Your task to perform on an android device: Open the Play Movies app and select the watchlist tab. Image 0: 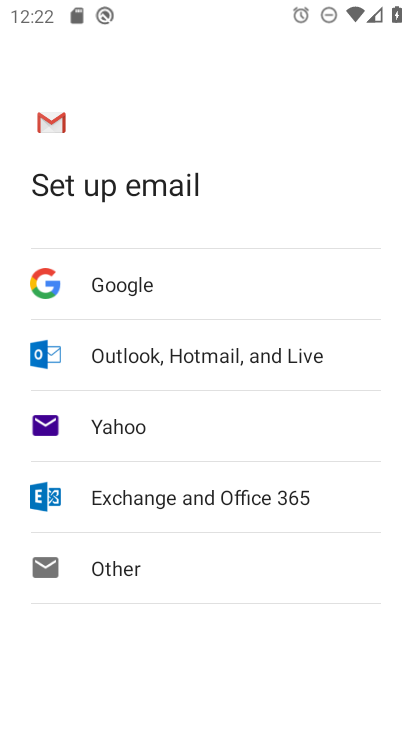
Step 0: press home button
Your task to perform on an android device: Open the Play Movies app and select the watchlist tab. Image 1: 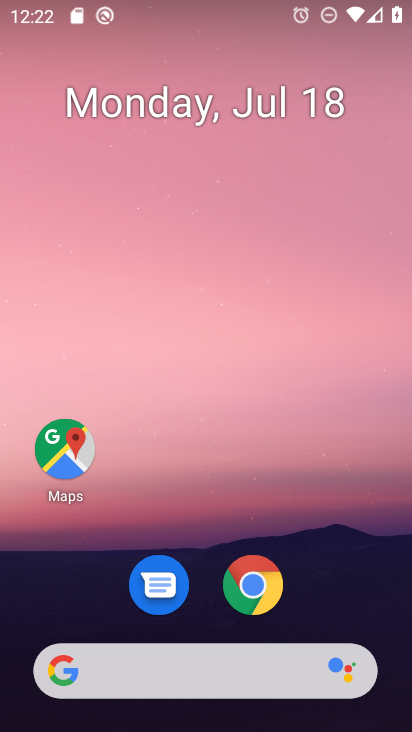
Step 1: drag from (335, 527) to (245, 34)
Your task to perform on an android device: Open the Play Movies app and select the watchlist tab. Image 2: 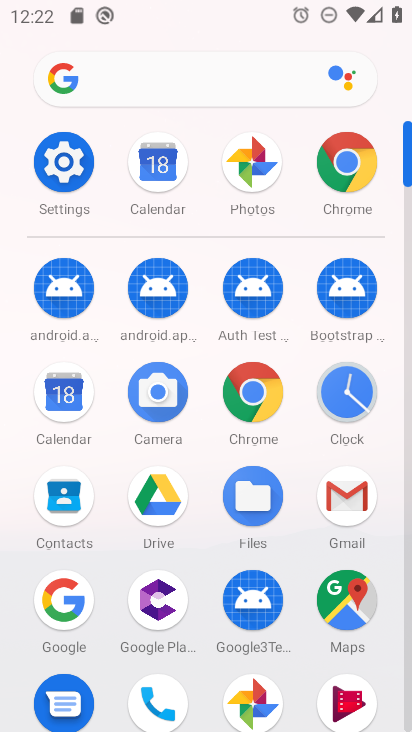
Step 2: drag from (317, 540) to (296, 309)
Your task to perform on an android device: Open the Play Movies app and select the watchlist tab. Image 3: 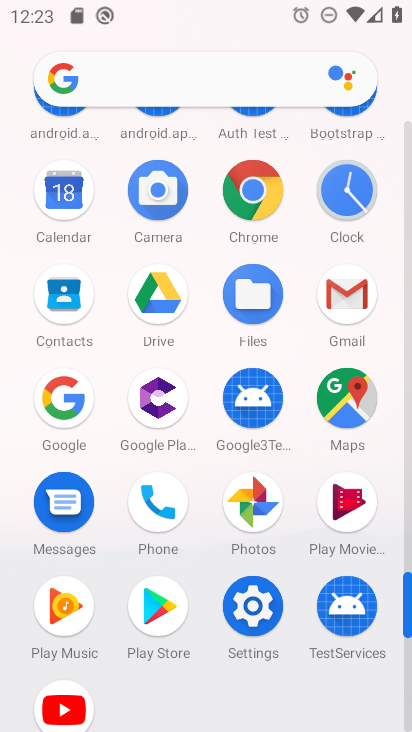
Step 3: click (344, 501)
Your task to perform on an android device: Open the Play Movies app and select the watchlist tab. Image 4: 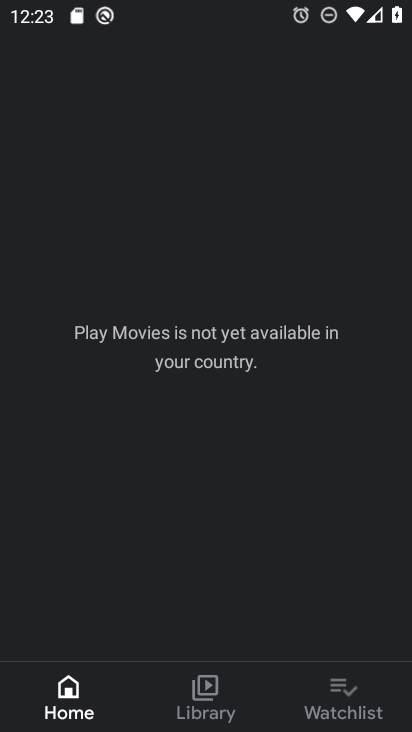
Step 4: click (349, 699)
Your task to perform on an android device: Open the Play Movies app and select the watchlist tab. Image 5: 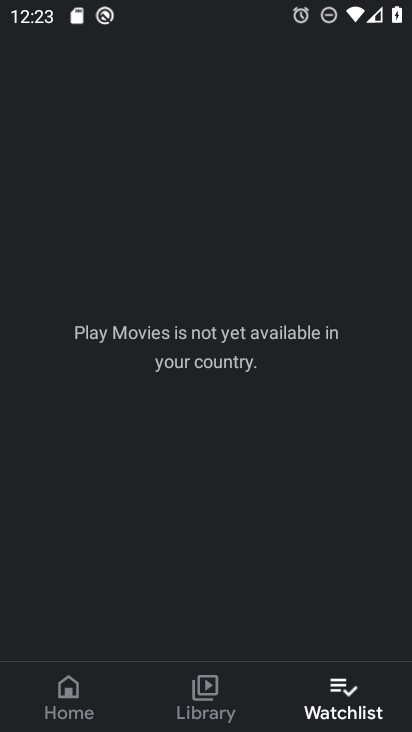
Step 5: task complete